Your task to perform on an android device: see tabs open on other devices in the chrome app Image 0: 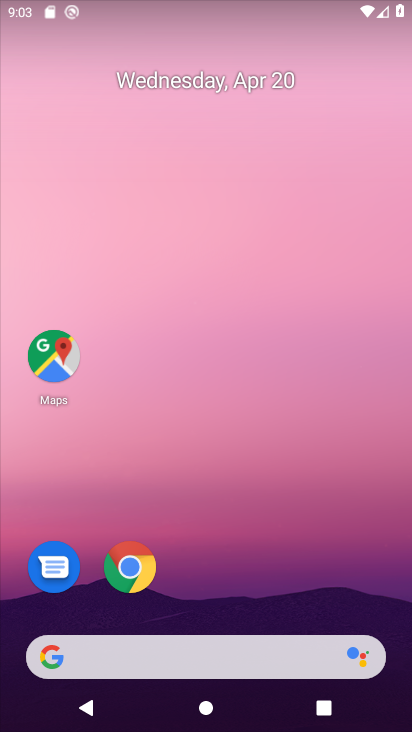
Step 0: drag from (251, 496) to (263, 203)
Your task to perform on an android device: see tabs open on other devices in the chrome app Image 1: 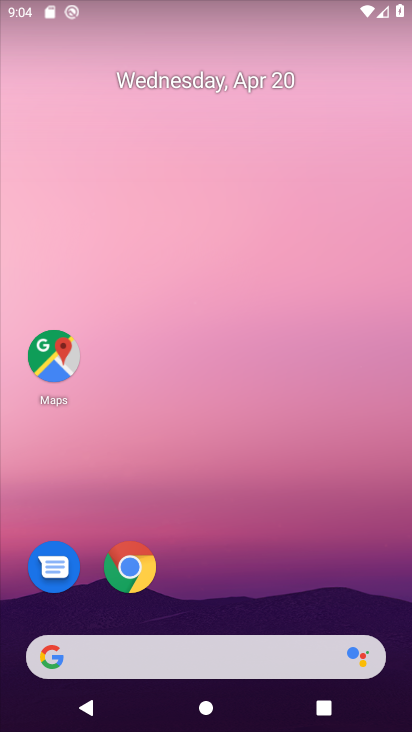
Step 1: click (300, 314)
Your task to perform on an android device: see tabs open on other devices in the chrome app Image 2: 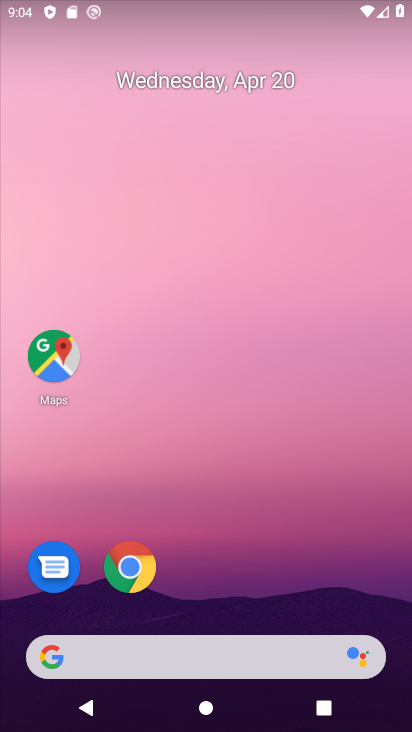
Step 2: drag from (267, 474) to (279, 316)
Your task to perform on an android device: see tabs open on other devices in the chrome app Image 3: 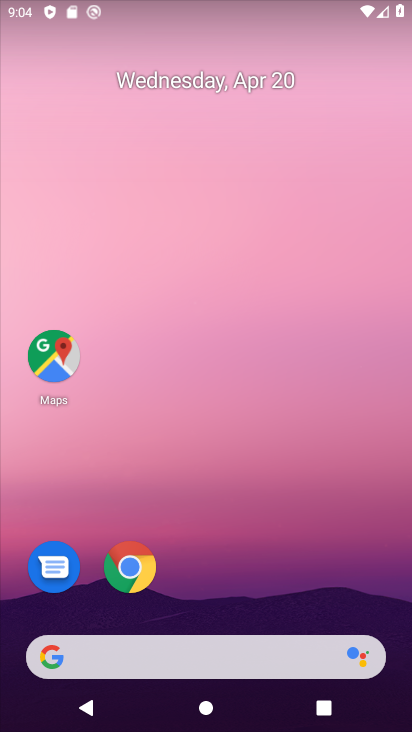
Step 3: drag from (202, 626) to (223, 116)
Your task to perform on an android device: see tabs open on other devices in the chrome app Image 4: 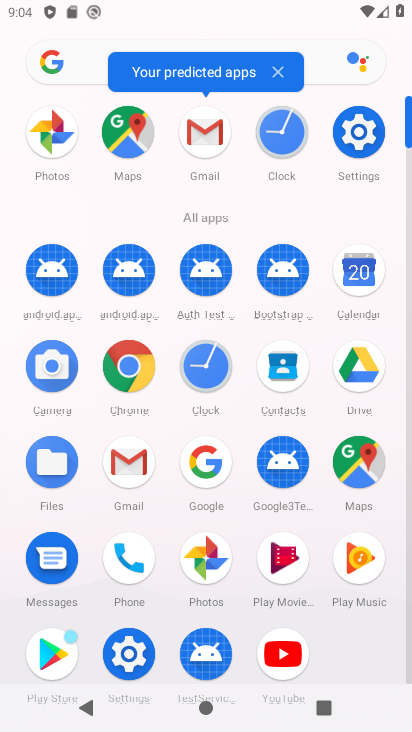
Step 4: click (130, 355)
Your task to perform on an android device: see tabs open on other devices in the chrome app Image 5: 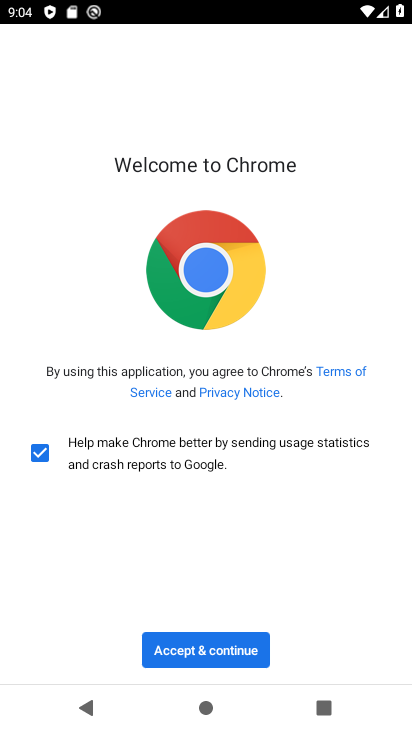
Step 5: click (237, 649)
Your task to perform on an android device: see tabs open on other devices in the chrome app Image 6: 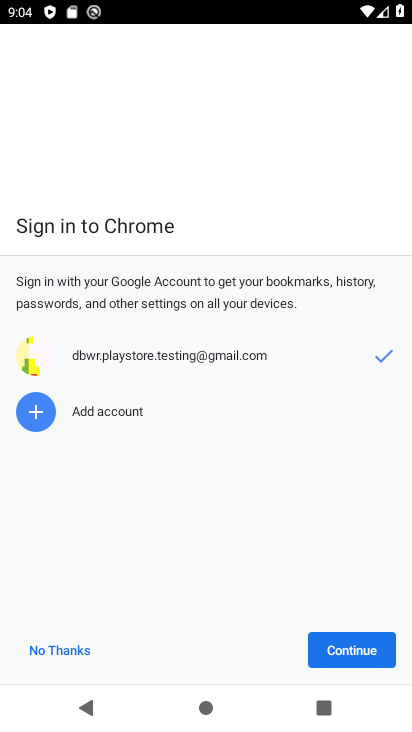
Step 6: click (370, 654)
Your task to perform on an android device: see tabs open on other devices in the chrome app Image 7: 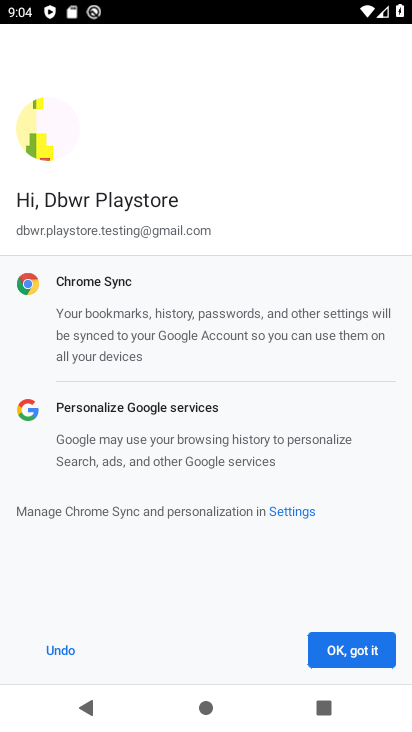
Step 7: click (366, 646)
Your task to perform on an android device: see tabs open on other devices in the chrome app Image 8: 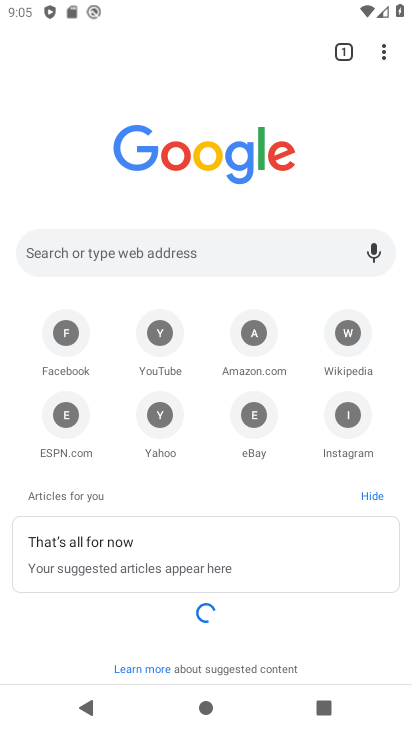
Step 8: click (376, 49)
Your task to perform on an android device: see tabs open on other devices in the chrome app Image 9: 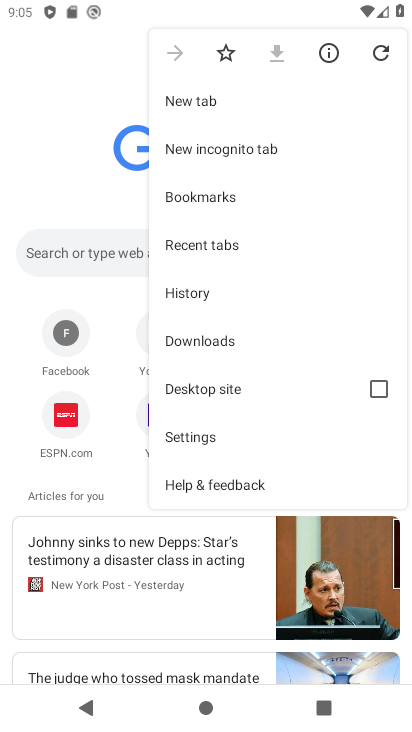
Step 9: click (216, 285)
Your task to perform on an android device: see tabs open on other devices in the chrome app Image 10: 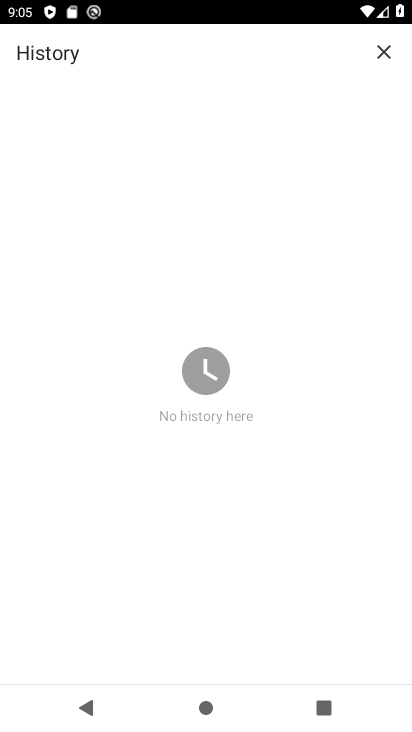
Step 10: task complete